Your task to perform on an android device: turn off location Image 0: 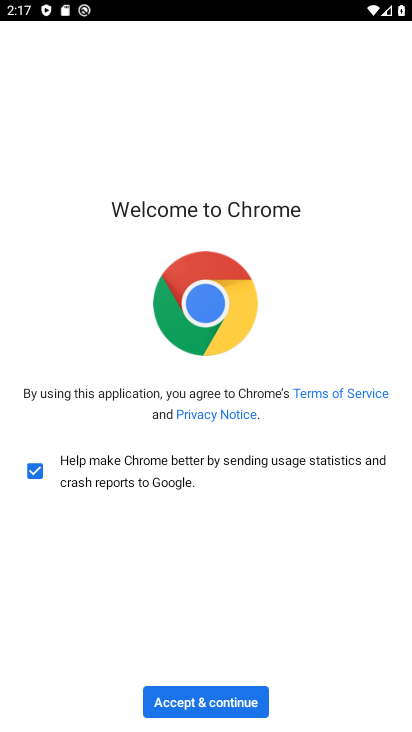
Step 0: press home button
Your task to perform on an android device: turn off location Image 1: 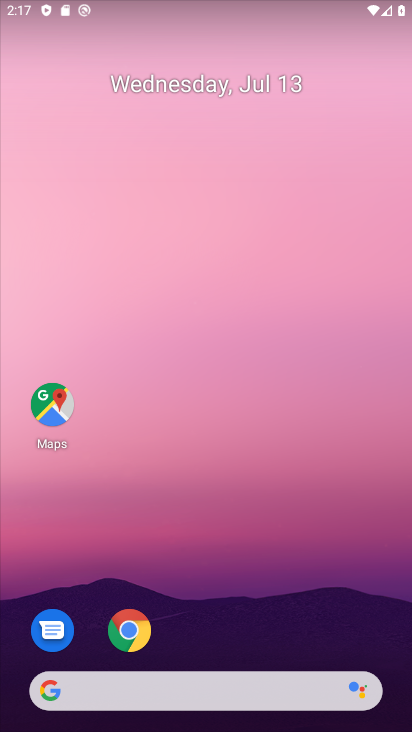
Step 1: drag from (267, 607) to (177, 123)
Your task to perform on an android device: turn off location Image 2: 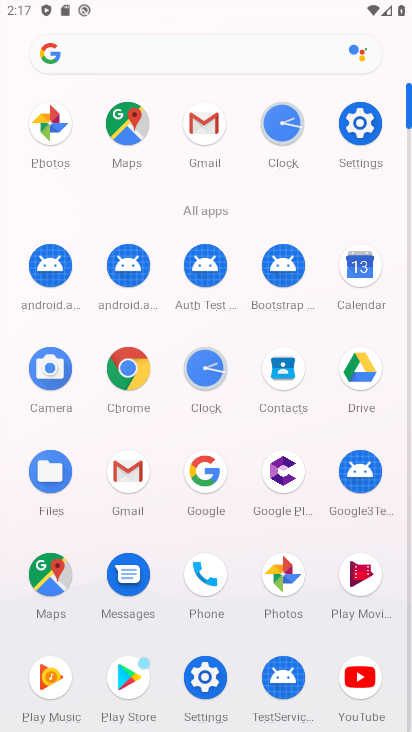
Step 2: click (361, 124)
Your task to perform on an android device: turn off location Image 3: 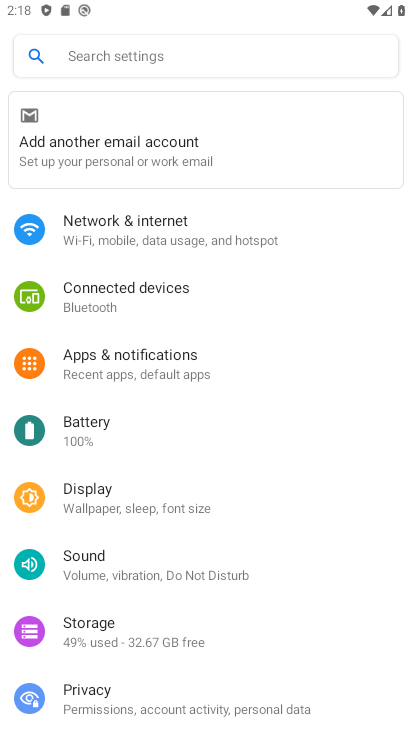
Step 3: drag from (230, 675) to (175, 235)
Your task to perform on an android device: turn off location Image 4: 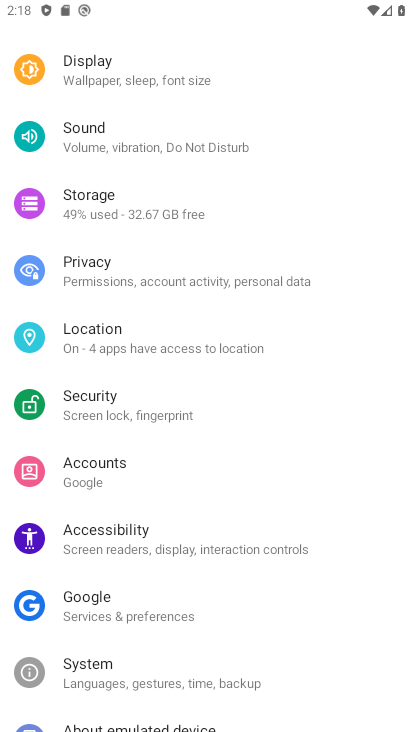
Step 4: click (168, 342)
Your task to perform on an android device: turn off location Image 5: 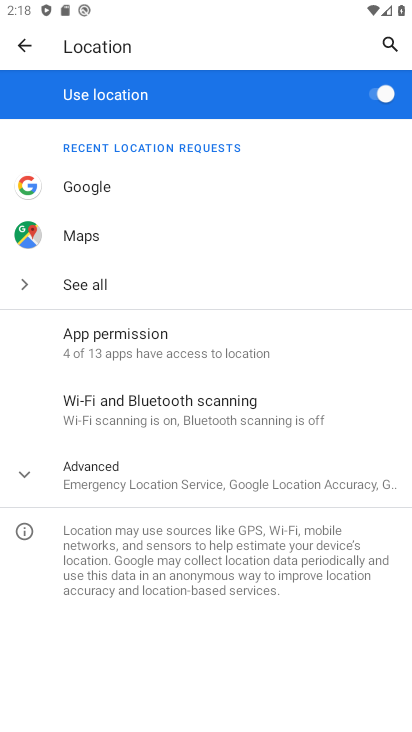
Step 5: click (374, 92)
Your task to perform on an android device: turn off location Image 6: 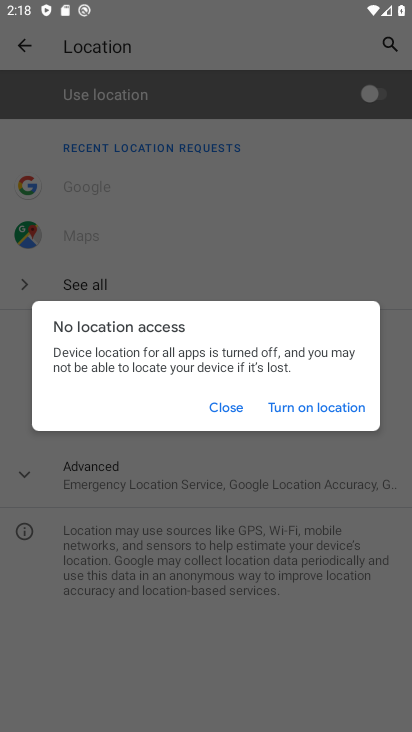
Step 6: task complete